Your task to perform on an android device: Search for pizza restaurants on Maps Image 0: 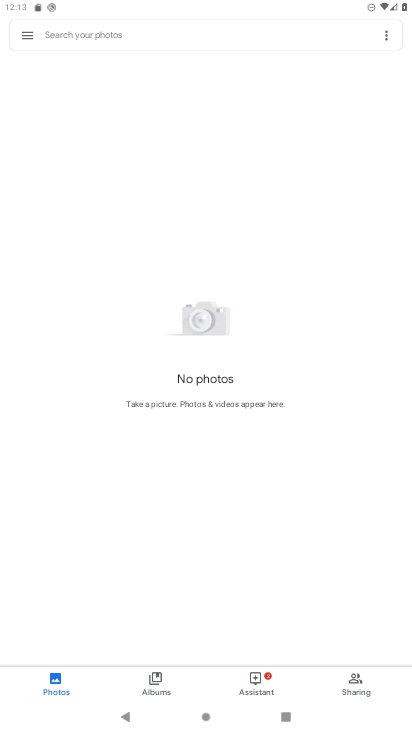
Step 0: press home button
Your task to perform on an android device: Search for pizza restaurants on Maps Image 1: 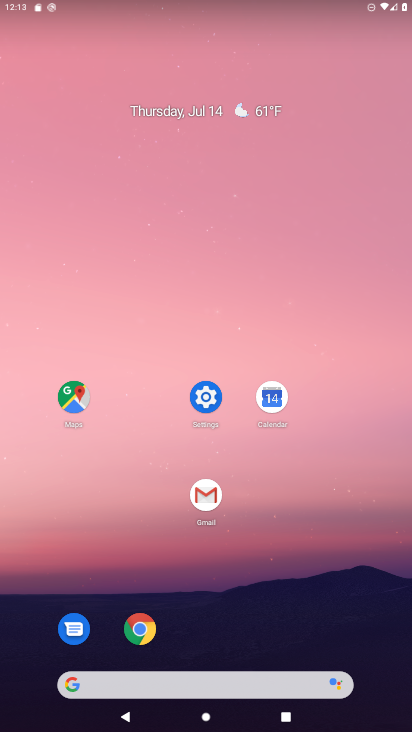
Step 1: drag from (384, 711) to (345, 241)
Your task to perform on an android device: Search for pizza restaurants on Maps Image 2: 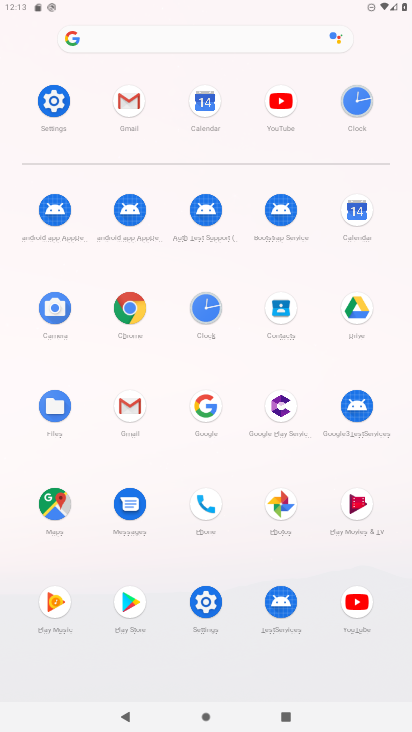
Step 2: click (58, 497)
Your task to perform on an android device: Search for pizza restaurants on Maps Image 3: 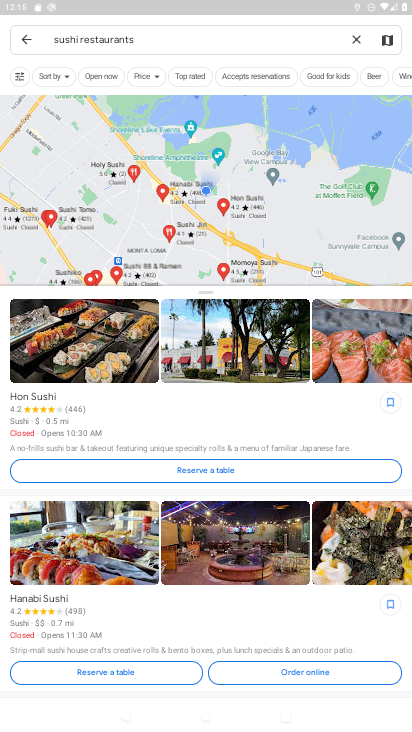
Step 3: click (359, 33)
Your task to perform on an android device: Search for pizza restaurants on Maps Image 4: 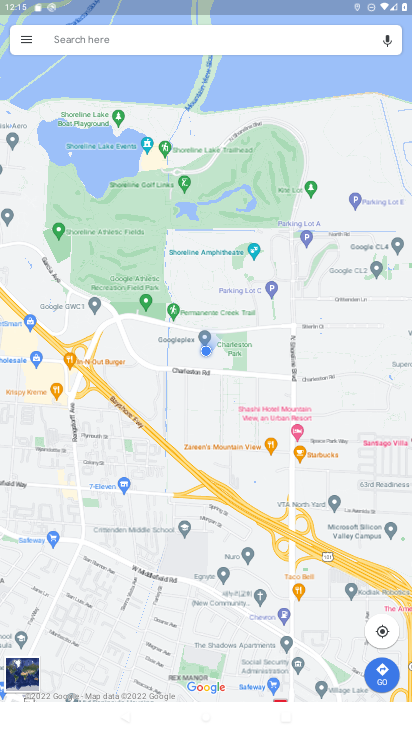
Step 4: click (113, 35)
Your task to perform on an android device: Search for pizza restaurants on Maps Image 5: 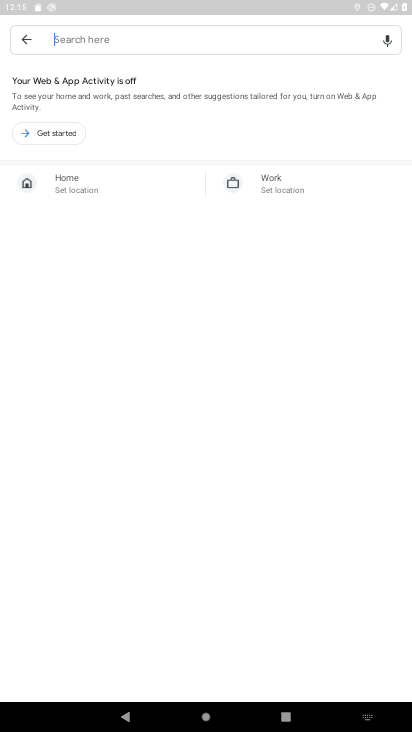
Step 5: type "pizza restaurants"
Your task to perform on an android device: Search for pizza restaurants on Maps Image 6: 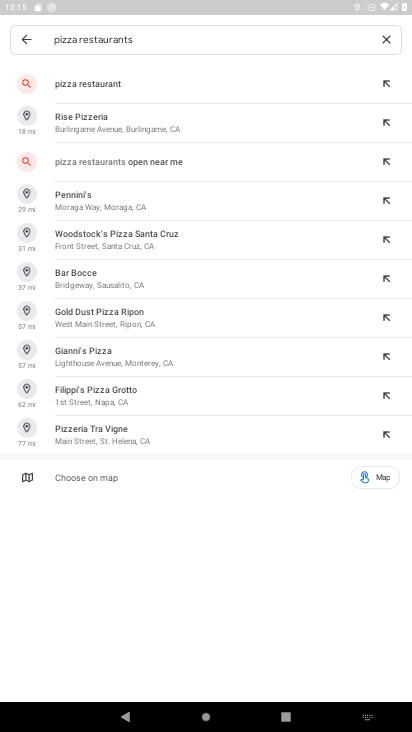
Step 6: click (85, 76)
Your task to perform on an android device: Search for pizza restaurants on Maps Image 7: 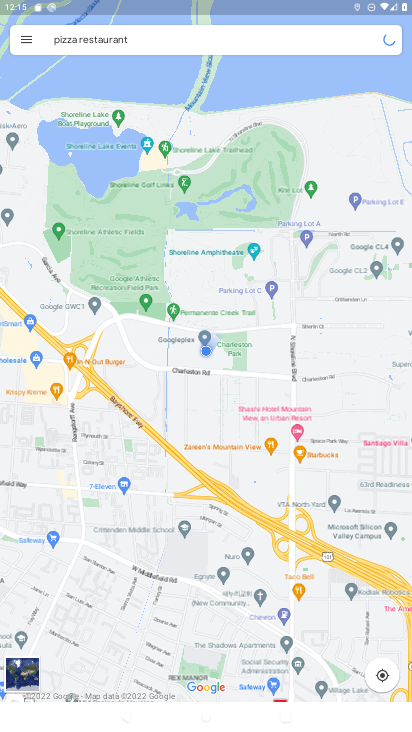
Step 7: task complete